Your task to perform on an android device: Go to privacy settings Image 0: 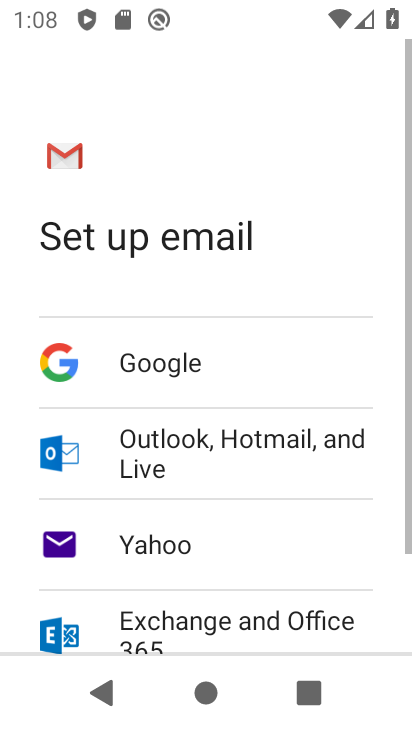
Step 0: press home button
Your task to perform on an android device: Go to privacy settings Image 1: 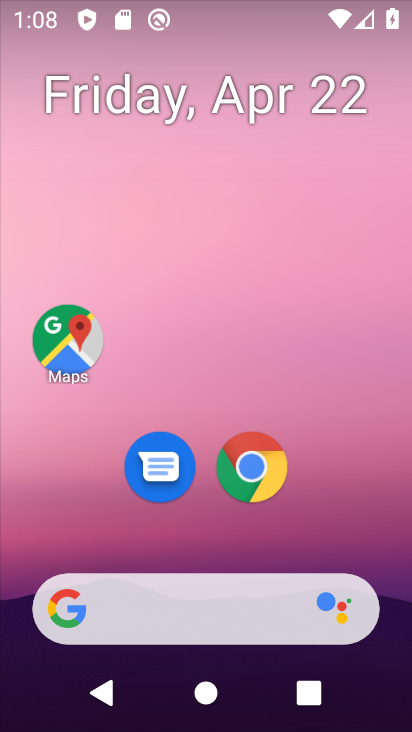
Step 1: drag from (201, 484) to (253, 56)
Your task to perform on an android device: Go to privacy settings Image 2: 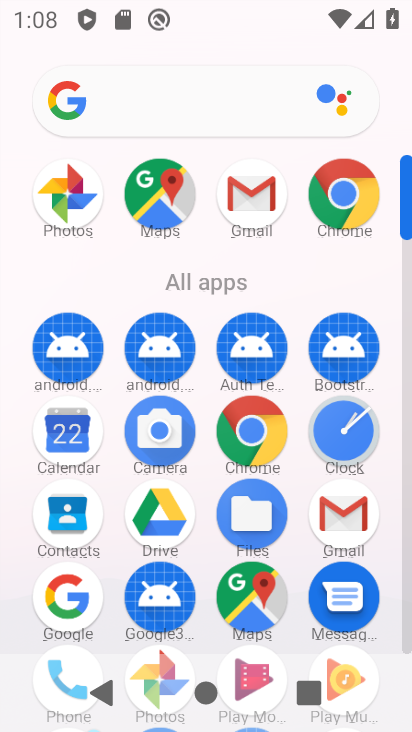
Step 2: drag from (204, 611) to (234, 187)
Your task to perform on an android device: Go to privacy settings Image 3: 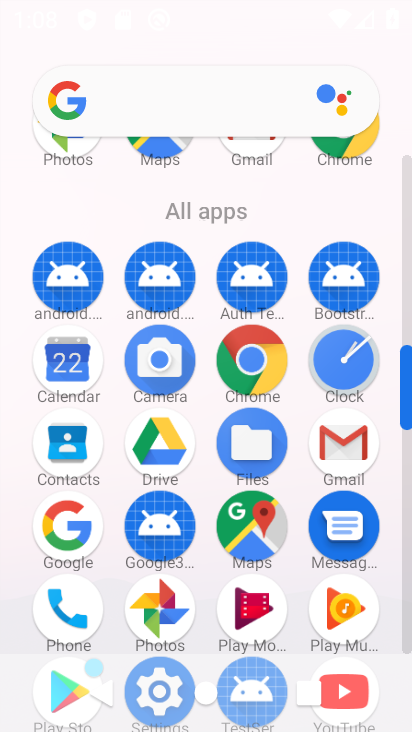
Step 3: drag from (202, 578) to (208, 202)
Your task to perform on an android device: Go to privacy settings Image 4: 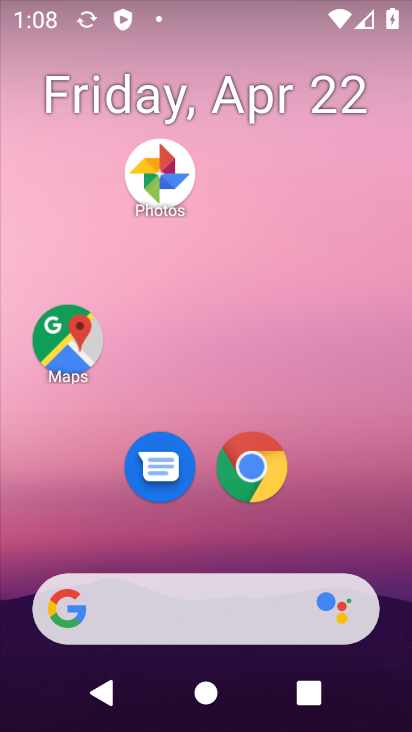
Step 4: drag from (263, 549) to (288, 168)
Your task to perform on an android device: Go to privacy settings Image 5: 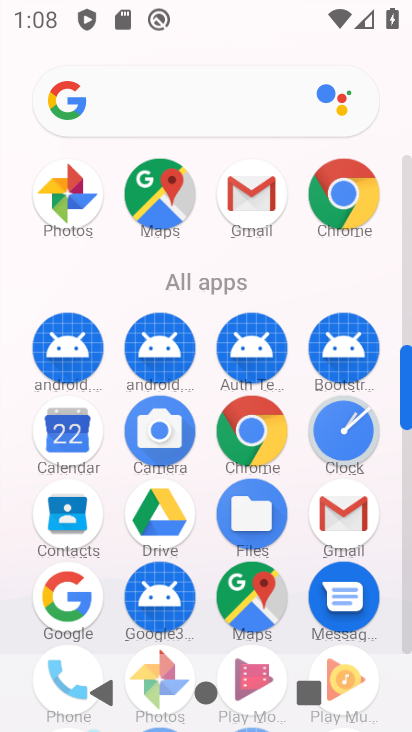
Step 5: drag from (204, 543) to (241, 131)
Your task to perform on an android device: Go to privacy settings Image 6: 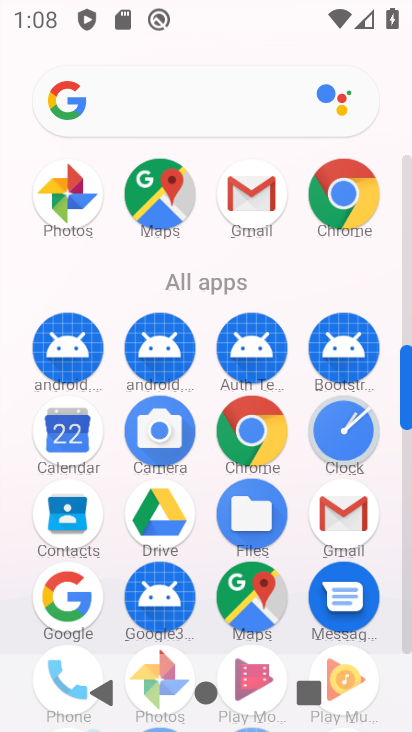
Step 6: drag from (204, 472) to (219, 171)
Your task to perform on an android device: Go to privacy settings Image 7: 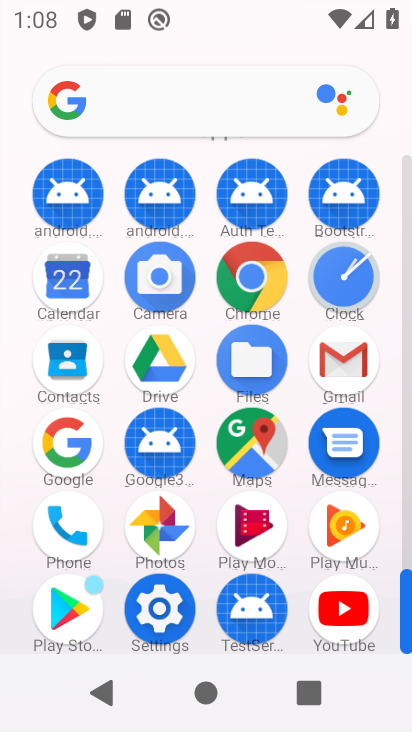
Step 7: click (154, 600)
Your task to perform on an android device: Go to privacy settings Image 8: 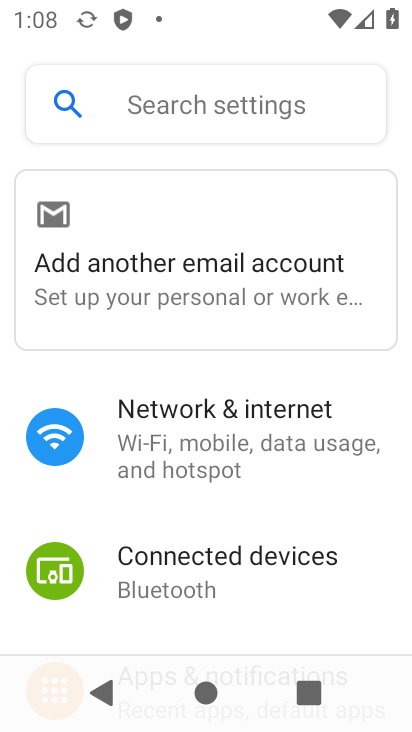
Step 8: drag from (214, 615) to (270, 136)
Your task to perform on an android device: Go to privacy settings Image 9: 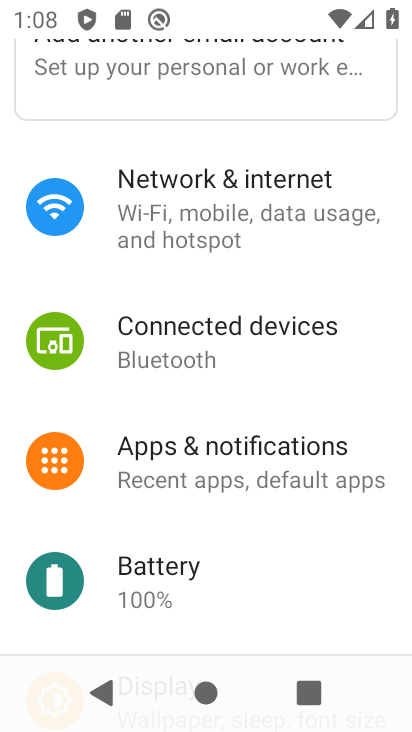
Step 9: drag from (229, 602) to (287, 168)
Your task to perform on an android device: Go to privacy settings Image 10: 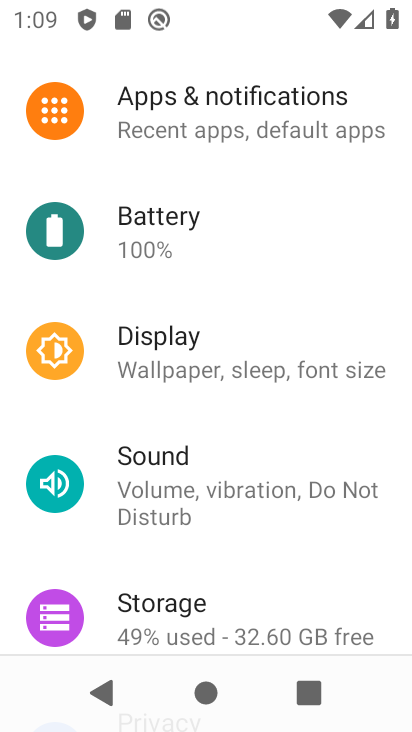
Step 10: drag from (227, 563) to (265, 166)
Your task to perform on an android device: Go to privacy settings Image 11: 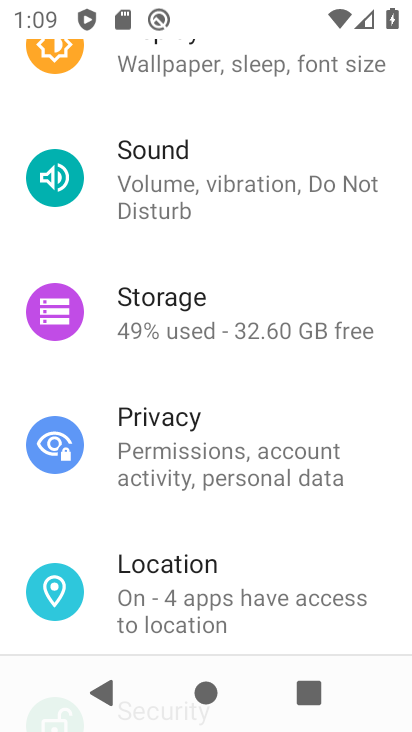
Step 11: click (212, 419)
Your task to perform on an android device: Go to privacy settings Image 12: 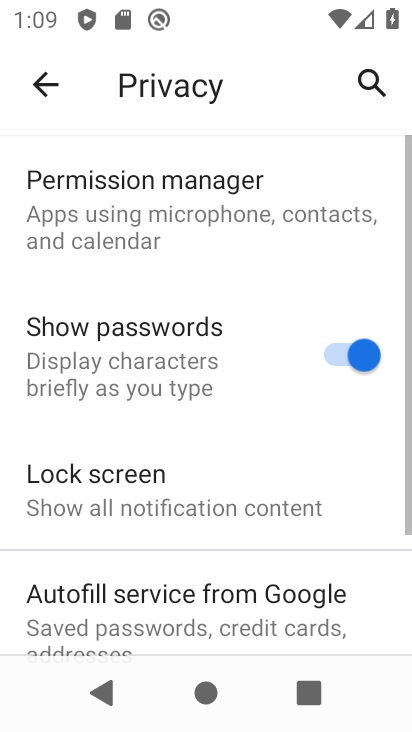
Step 12: drag from (210, 579) to (256, 273)
Your task to perform on an android device: Go to privacy settings Image 13: 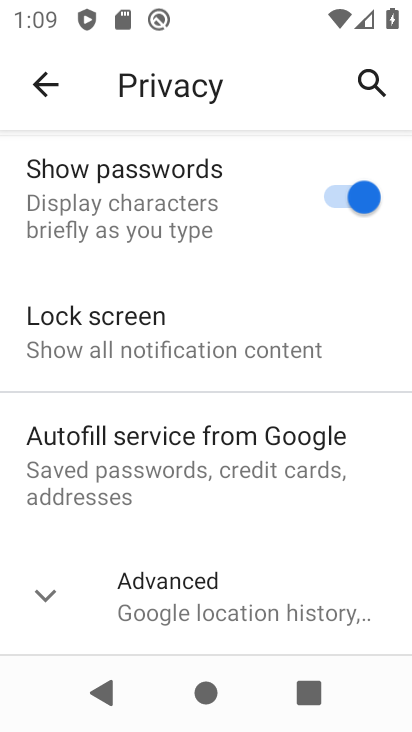
Step 13: drag from (230, 610) to (270, 351)
Your task to perform on an android device: Go to privacy settings Image 14: 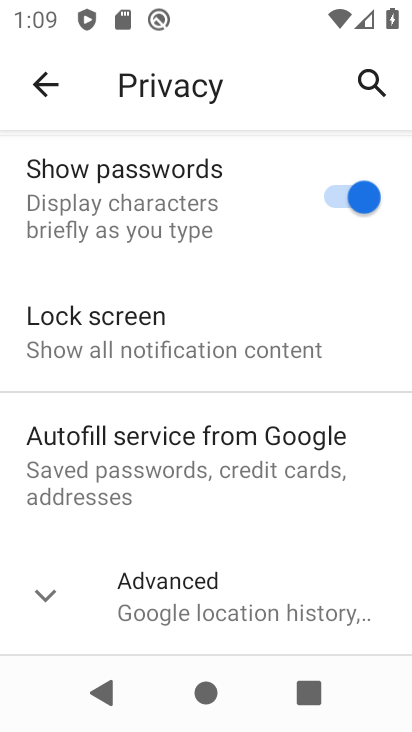
Step 14: click (44, 591)
Your task to perform on an android device: Go to privacy settings Image 15: 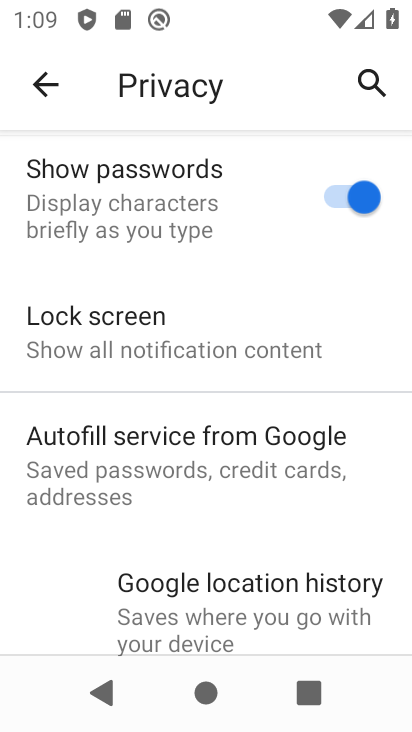
Step 15: task complete